Your task to perform on an android device: Go to eBay Image 0: 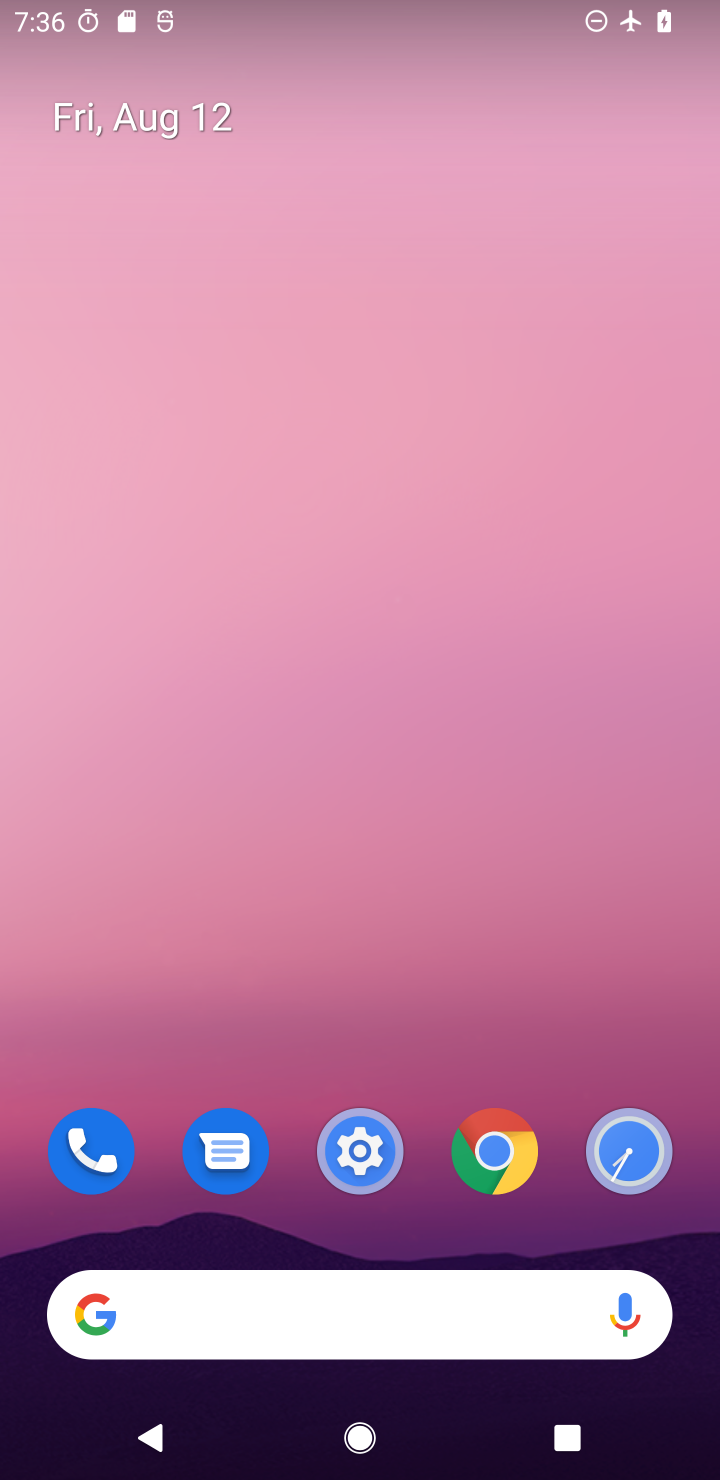
Step 0: drag from (410, 1005) to (390, 0)
Your task to perform on an android device: Go to eBay Image 1: 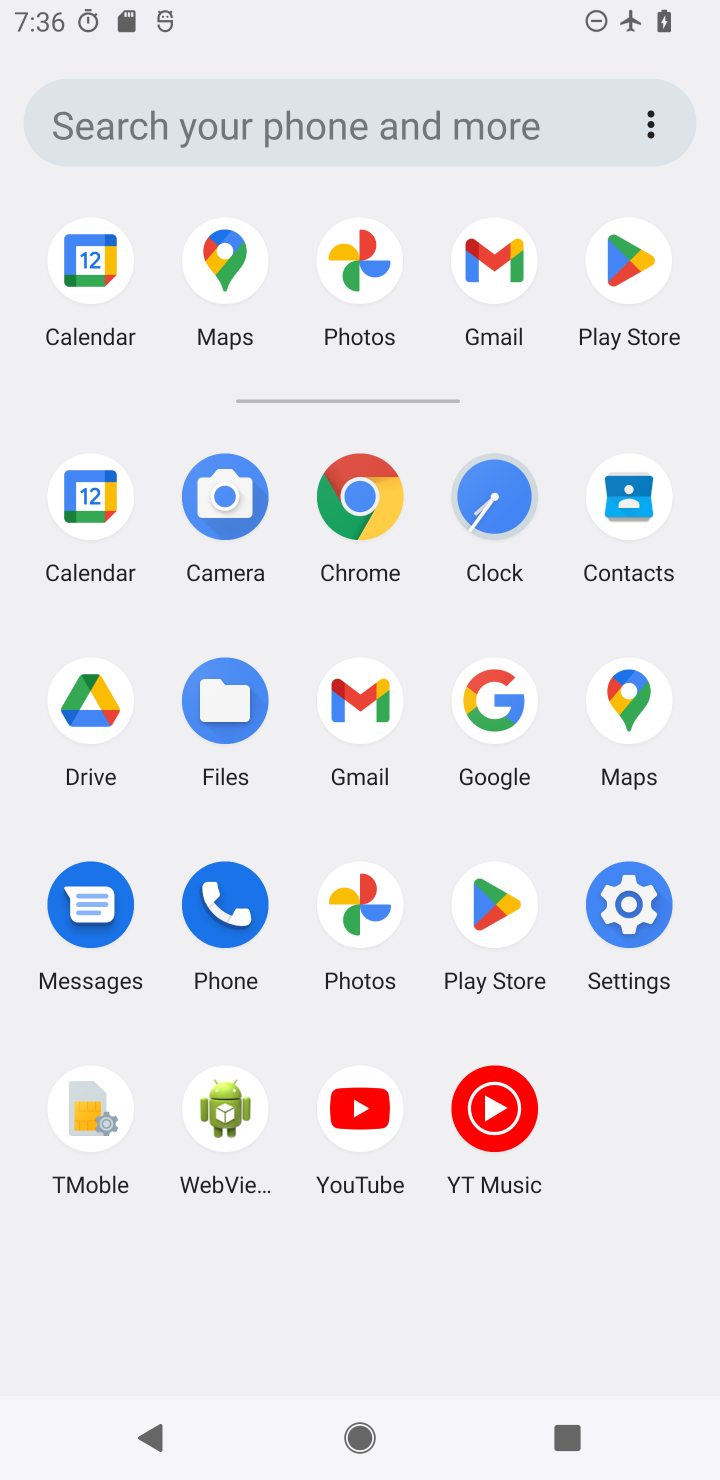
Step 1: click (360, 495)
Your task to perform on an android device: Go to eBay Image 2: 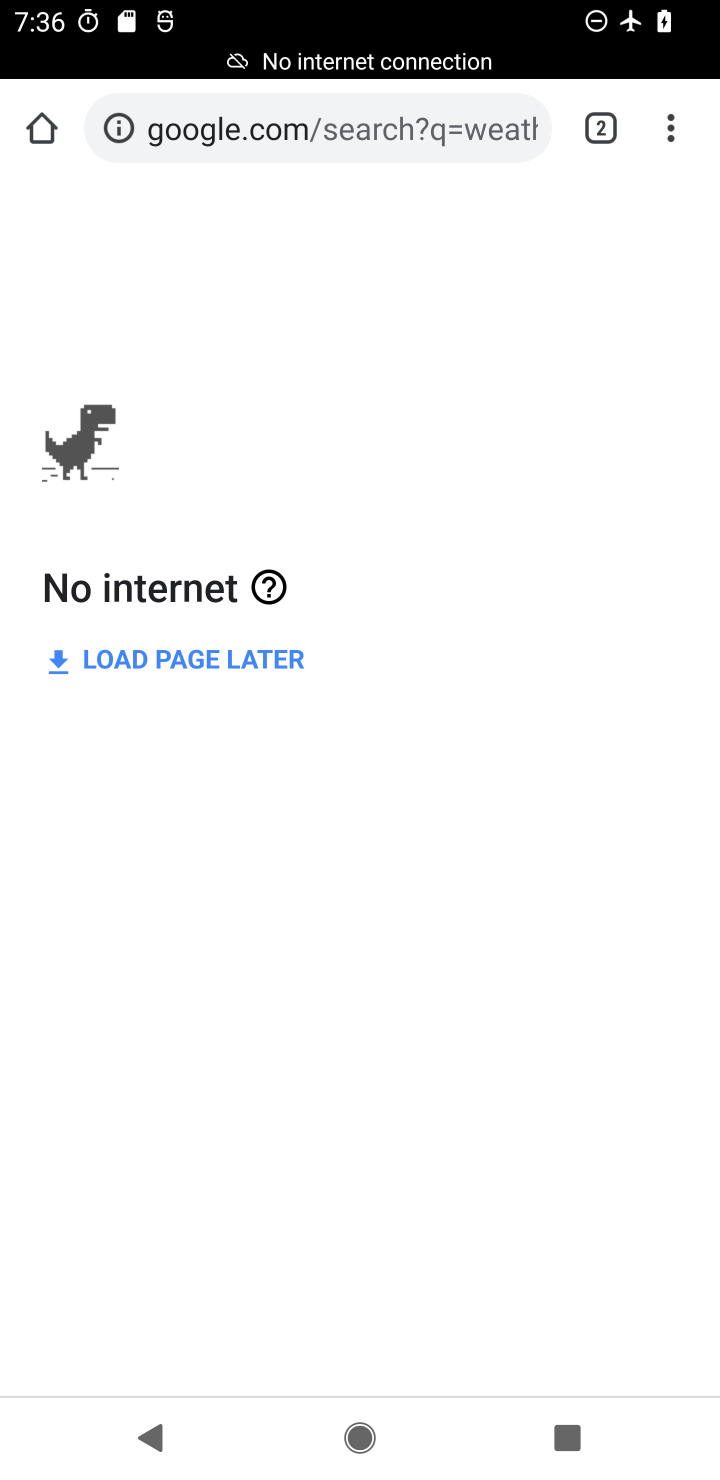
Step 2: click (418, 121)
Your task to perform on an android device: Go to eBay Image 3: 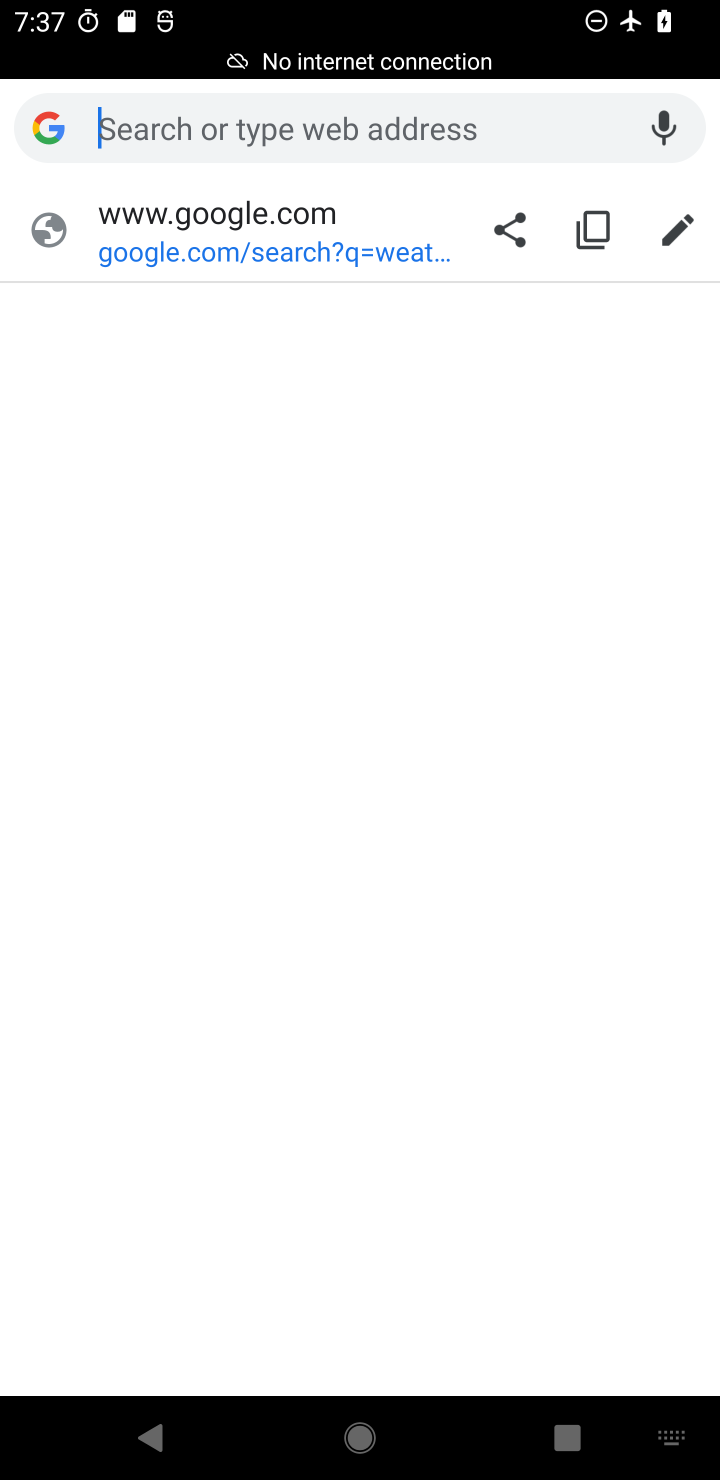
Step 3: type "ebay"
Your task to perform on an android device: Go to eBay Image 4: 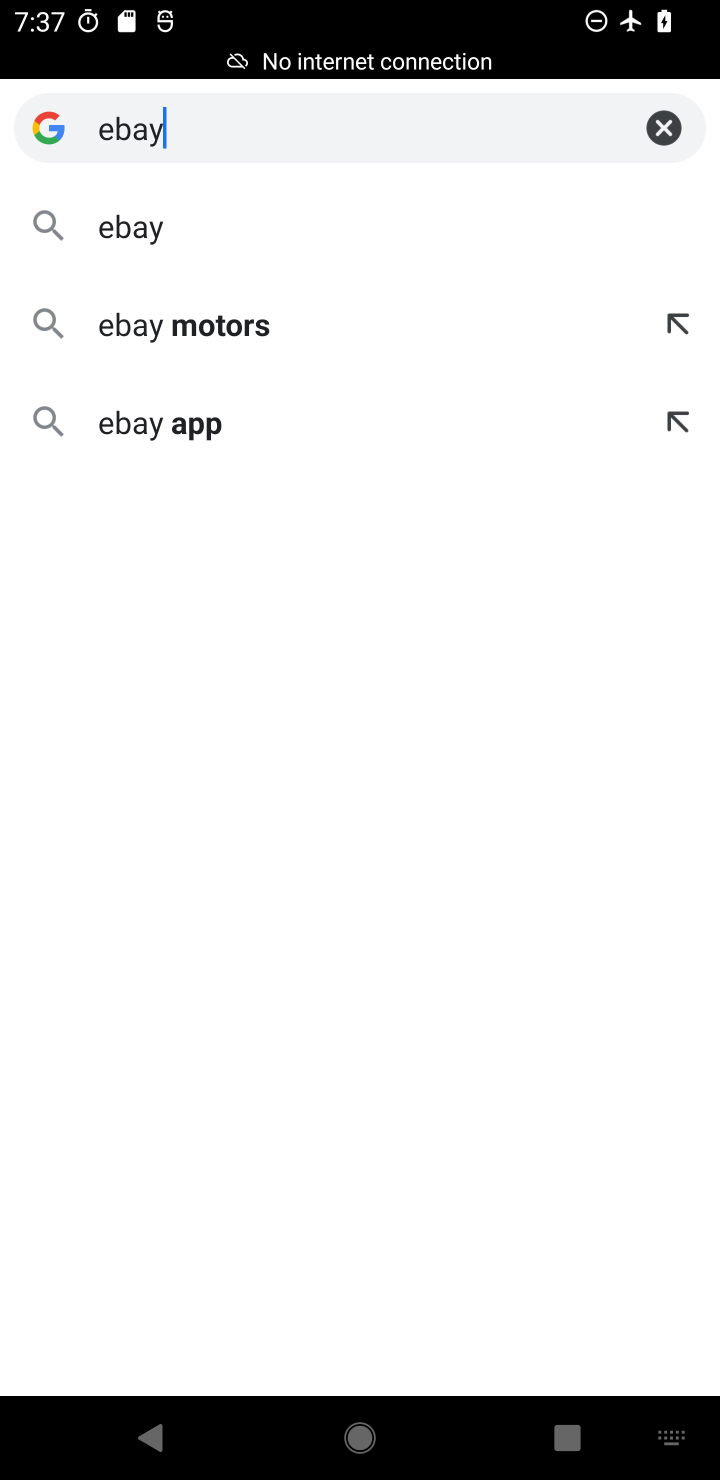
Step 4: click (195, 226)
Your task to perform on an android device: Go to eBay Image 5: 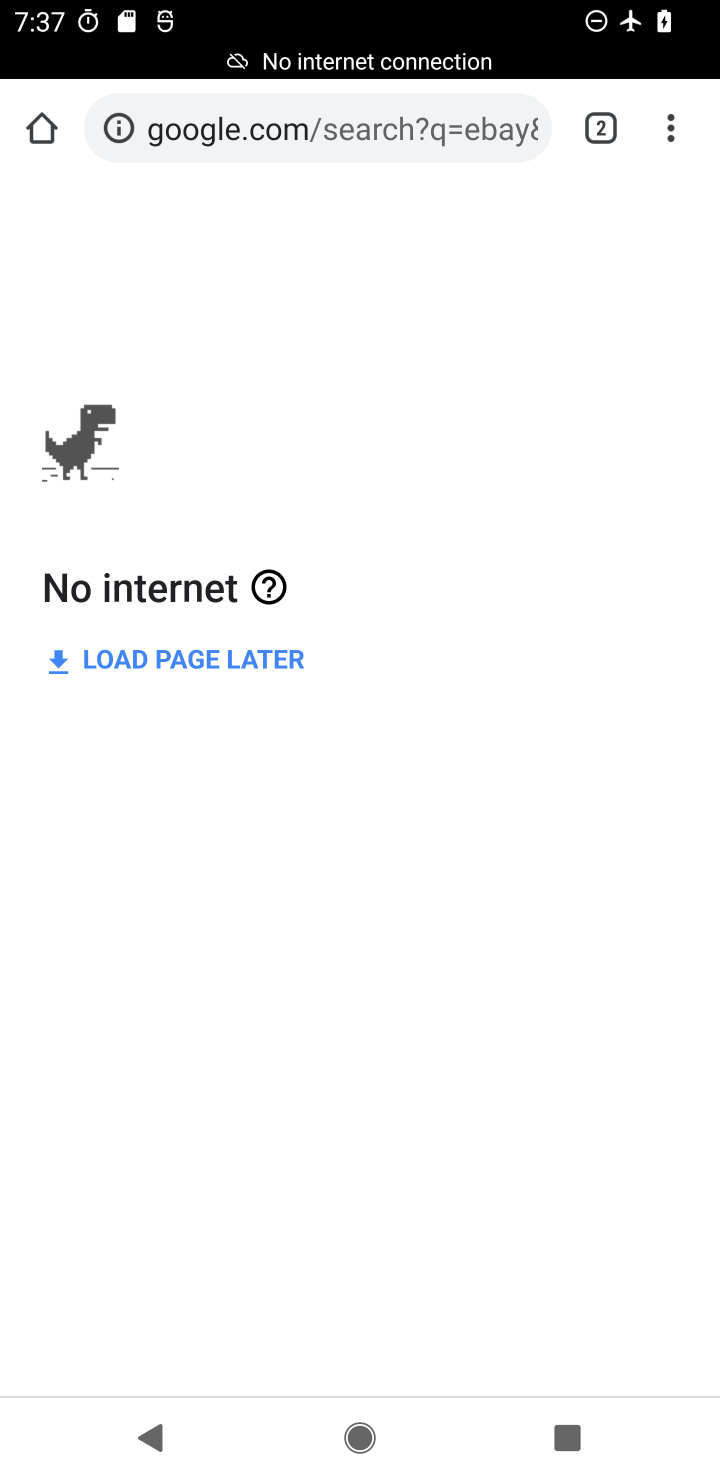
Step 5: task complete